Your task to perform on an android device: What's on my calendar today? Image 0: 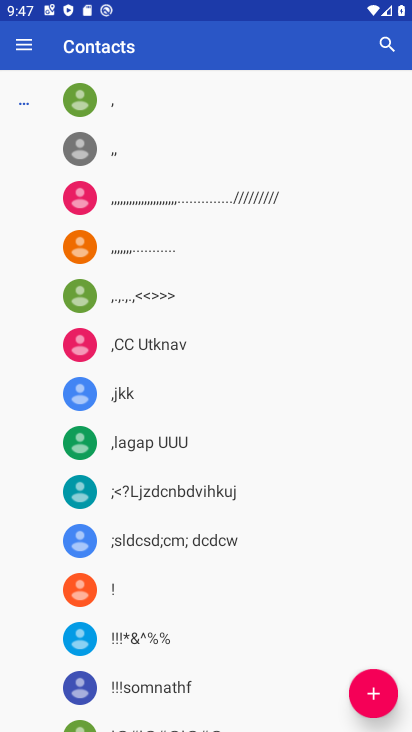
Step 0: press home button
Your task to perform on an android device: What's on my calendar today? Image 1: 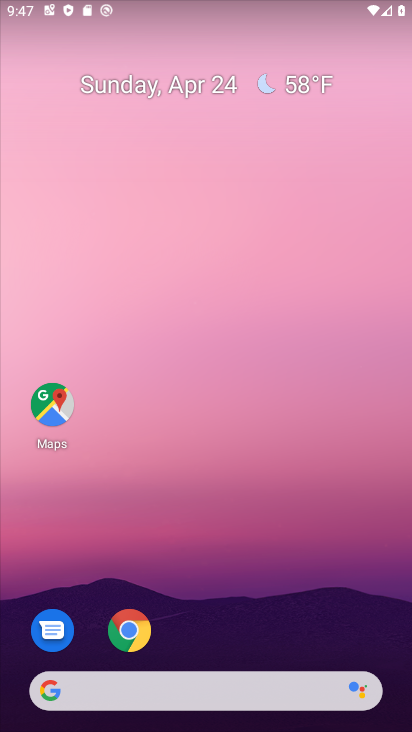
Step 1: drag from (289, 626) to (300, 16)
Your task to perform on an android device: What's on my calendar today? Image 2: 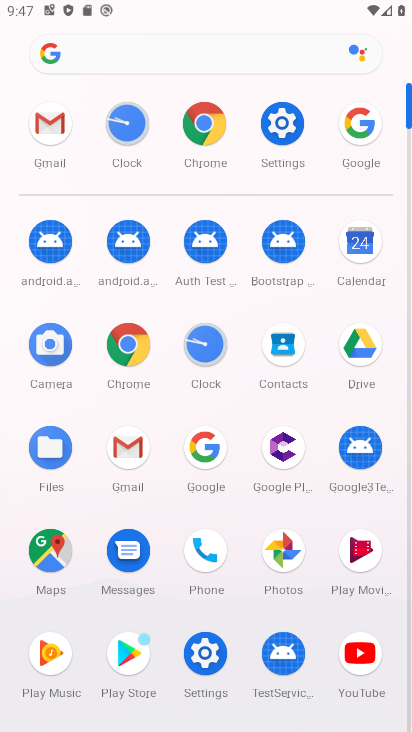
Step 2: click (360, 241)
Your task to perform on an android device: What's on my calendar today? Image 3: 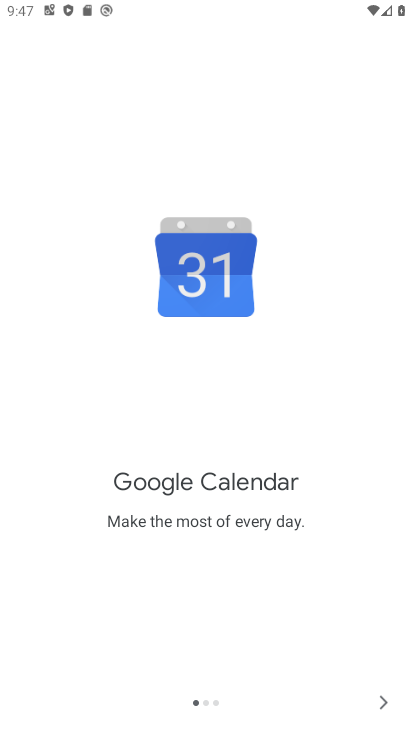
Step 3: click (381, 707)
Your task to perform on an android device: What's on my calendar today? Image 4: 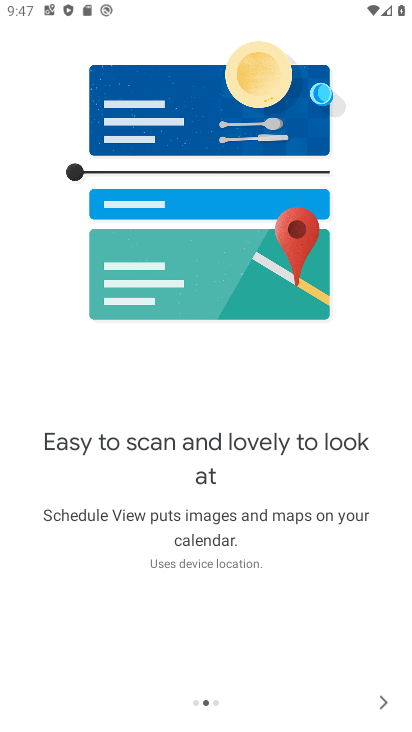
Step 4: click (381, 707)
Your task to perform on an android device: What's on my calendar today? Image 5: 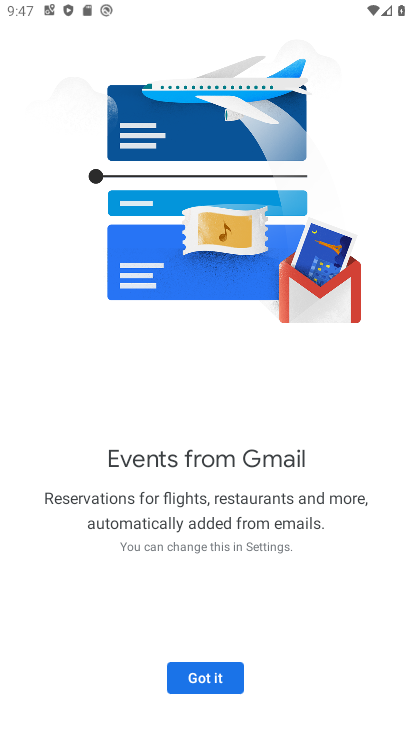
Step 5: click (228, 670)
Your task to perform on an android device: What's on my calendar today? Image 6: 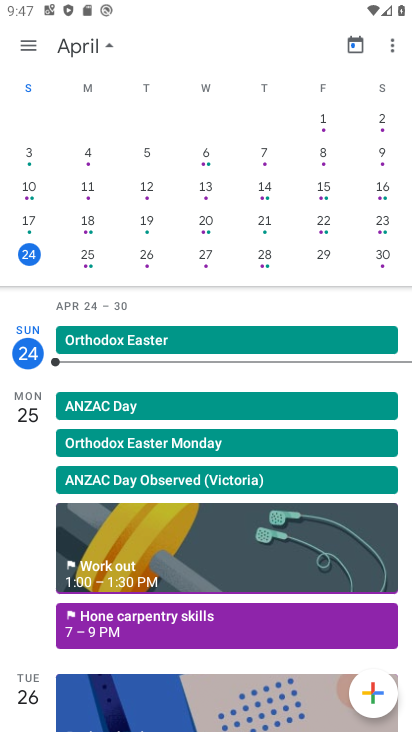
Step 6: task complete